Your task to perform on an android device: make emails show in primary in the gmail app Image 0: 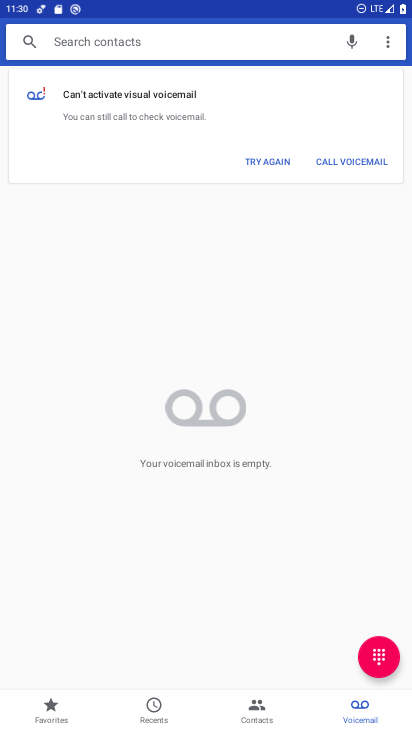
Step 0: press home button
Your task to perform on an android device: make emails show in primary in the gmail app Image 1: 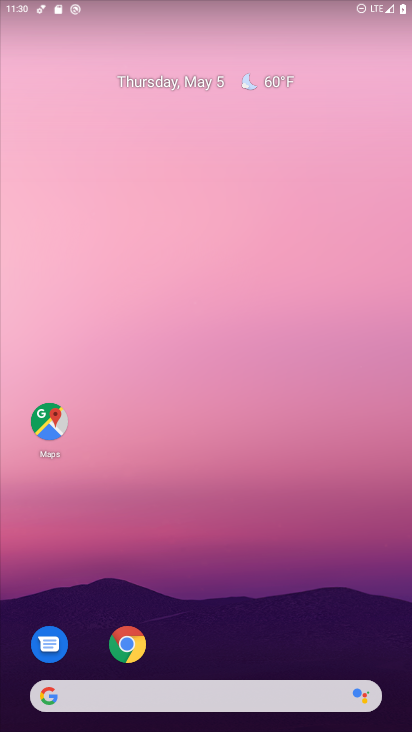
Step 1: drag from (344, 628) to (347, 82)
Your task to perform on an android device: make emails show in primary in the gmail app Image 2: 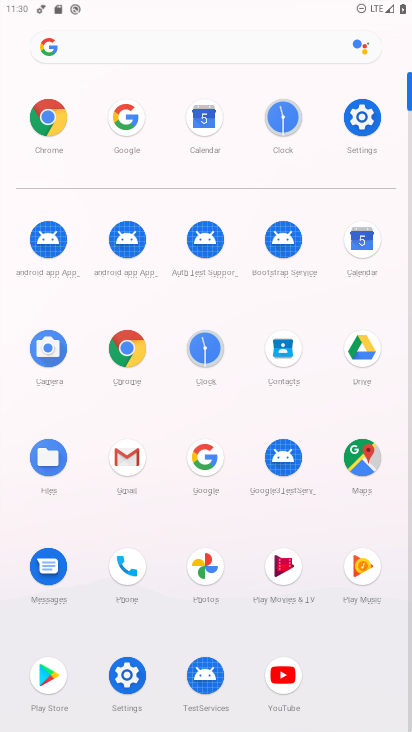
Step 2: click (119, 463)
Your task to perform on an android device: make emails show in primary in the gmail app Image 3: 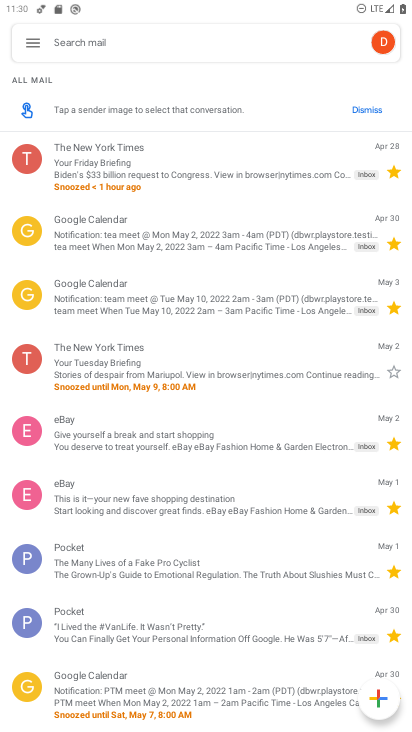
Step 3: click (38, 34)
Your task to perform on an android device: make emails show in primary in the gmail app Image 4: 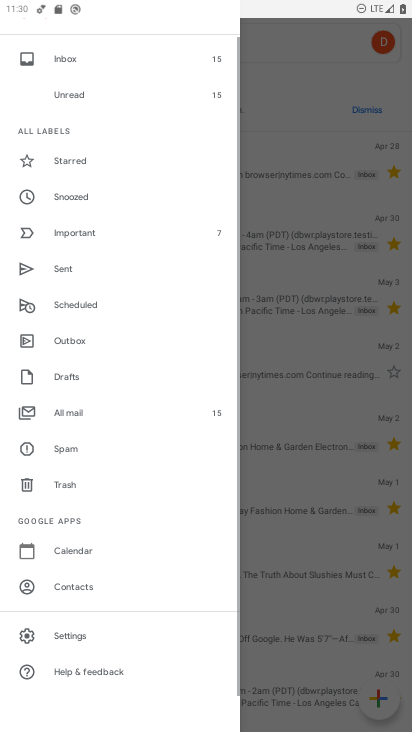
Step 4: drag from (121, 105) to (127, 472)
Your task to perform on an android device: make emails show in primary in the gmail app Image 5: 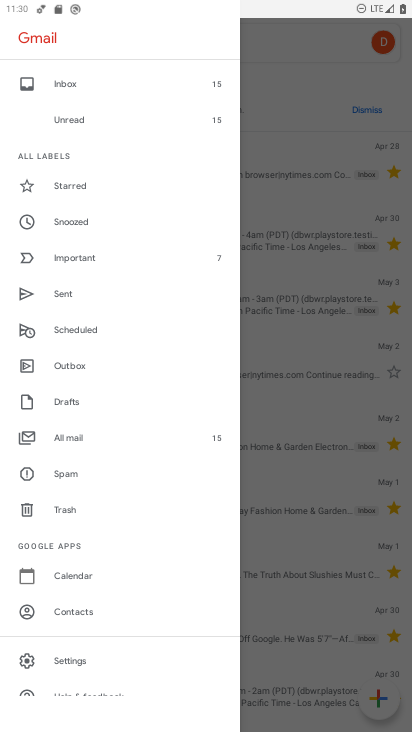
Step 5: drag from (133, 597) to (163, 205)
Your task to perform on an android device: make emails show in primary in the gmail app Image 6: 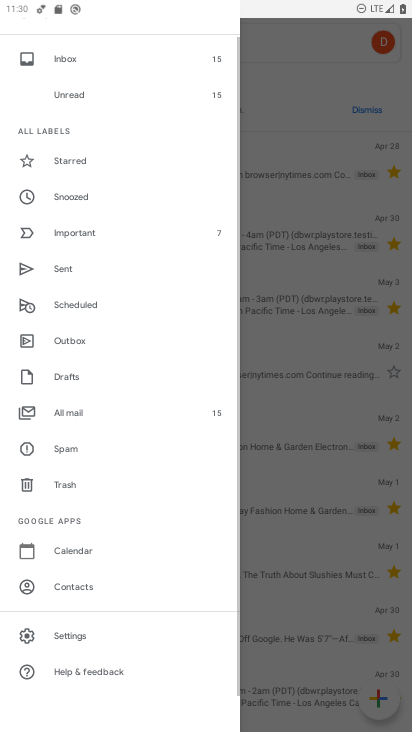
Step 6: click (82, 637)
Your task to perform on an android device: make emails show in primary in the gmail app Image 7: 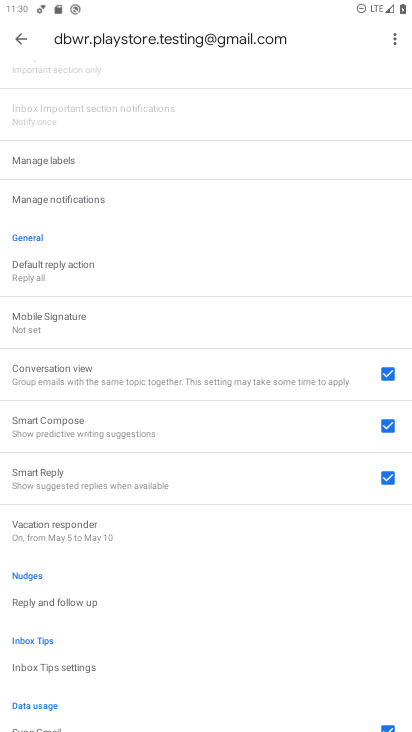
Step 7: drag from (139, 123) to (140, 503)
Your task to perform on an android device: make emails show in primary in the gmail app Image 8: 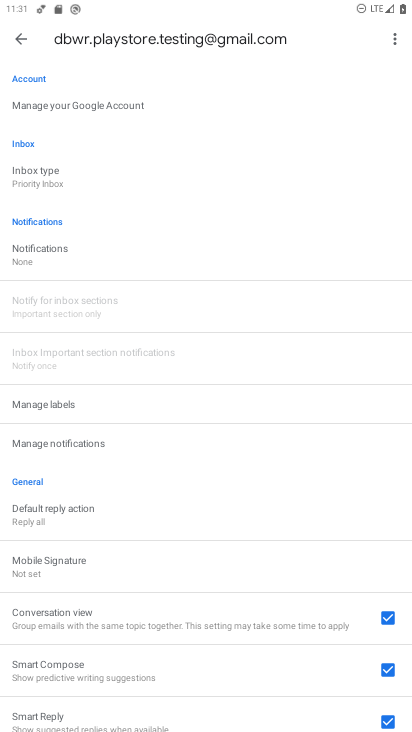
Step 8: click (66, 175)
Your task to perform on an android device: make emails show in primary in the gmail app Image 9: 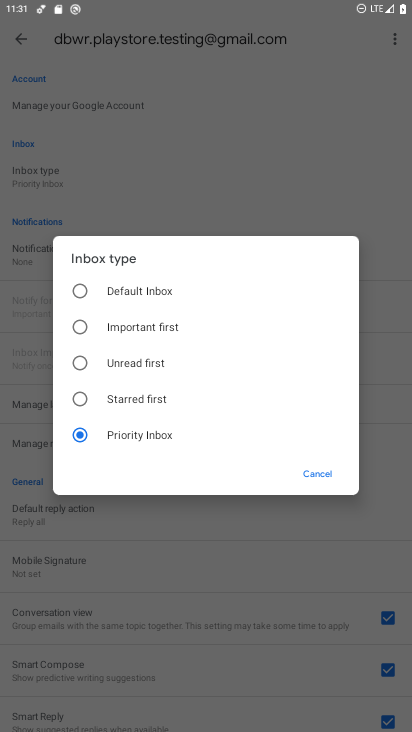
Step 9: click (129, 293)
Your task to perform on an android device: make emails show in primary in the gmail app Image 10: 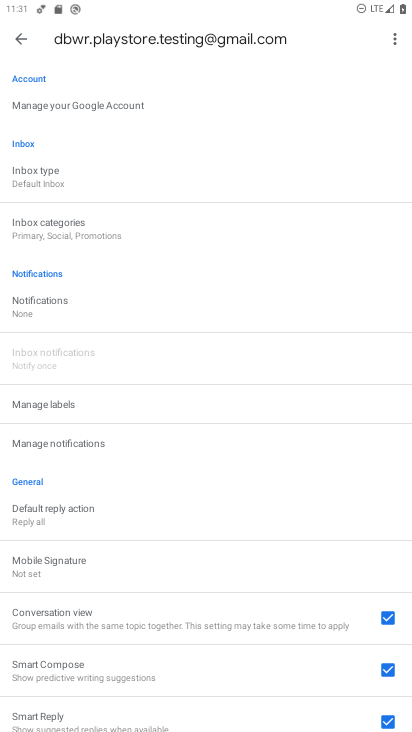
Step 10: click (19, 34)
Your task to perform on an android device: make emails show in primary in the gmail app Image 11: 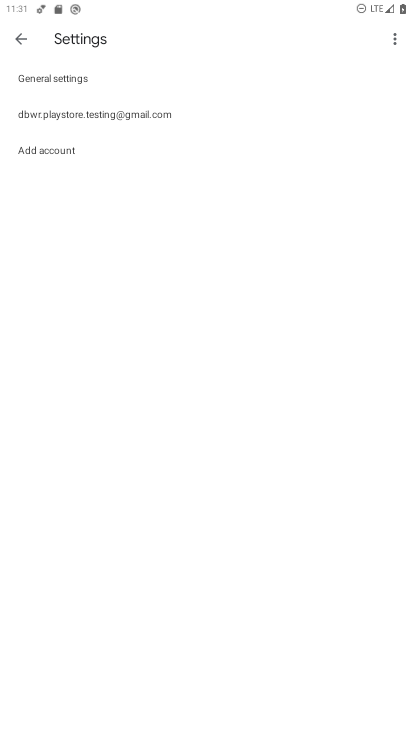
Step 11: click (22, 42)
Your task to perform on an android device: make emails show in primary in the gmail app Image 12: 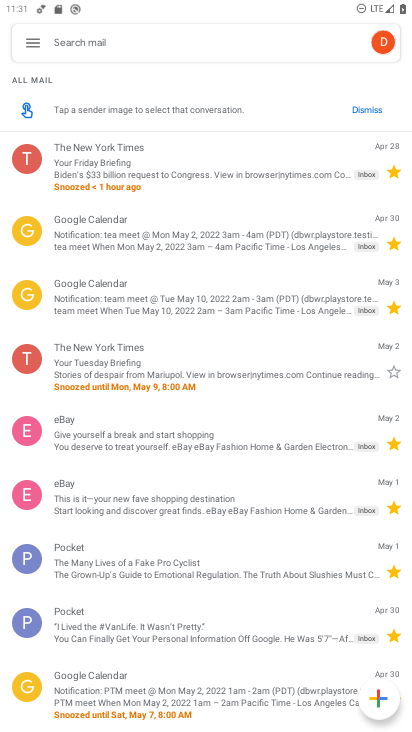
Step 12: click (16, 26)
Your task to perform on an android device: make emails show in primary in the gmail app Image 13: 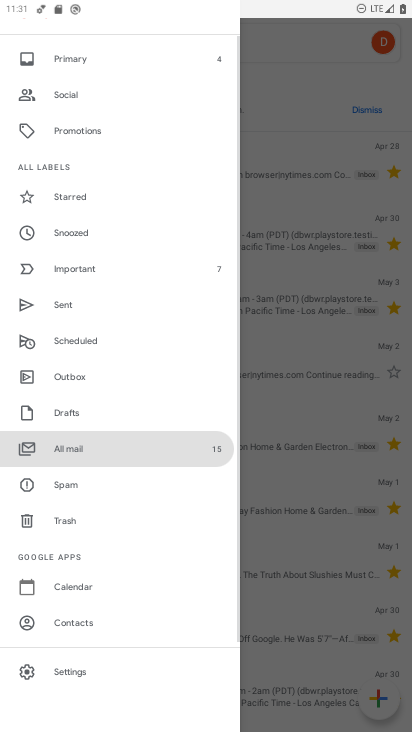
Step 13: click (99, 67)
Your task to perform on an android device: make emails show in primary in the gmail app Image 14: 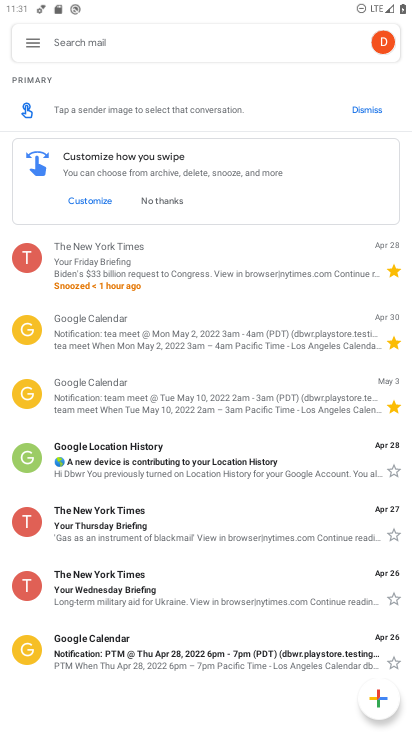
Step 14: task complete